Your task to perform on an android device: add a label to a message in the gmail app Image 0: 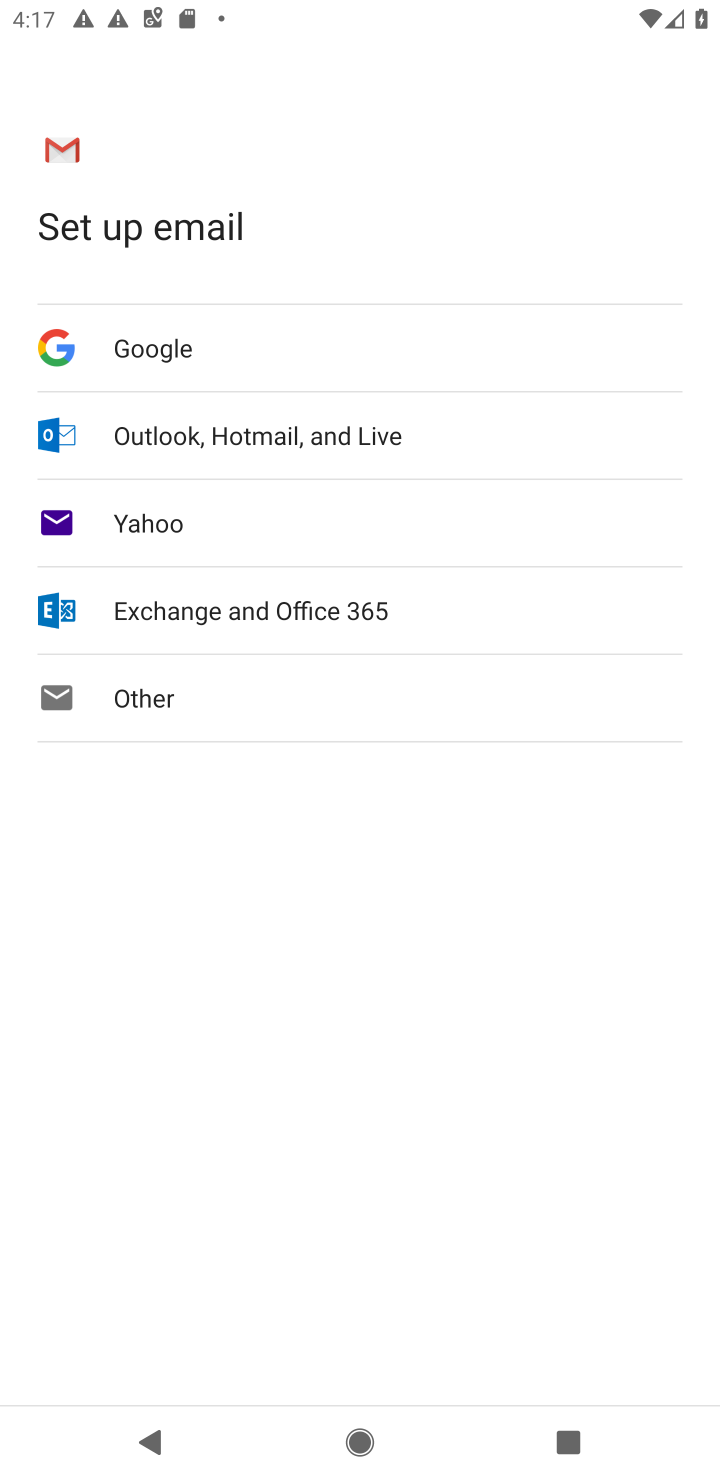
Step 0: press home button
Your task to perform on an android device: add a label to a message in the gmail app Image 1: 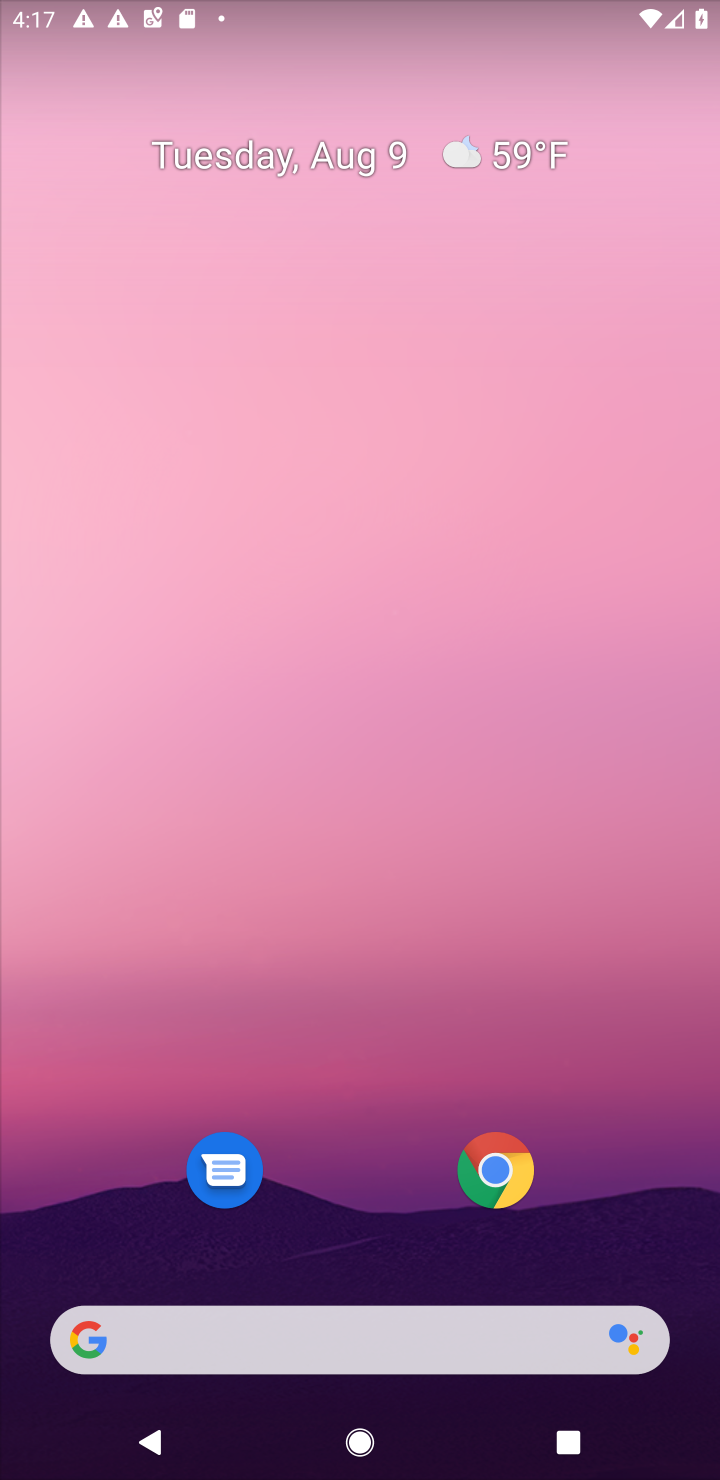
Step 1: drag from (286, 885) to (246, 23)
Your task to perform on an android device: add a label to a message in the gmail app Image 2: 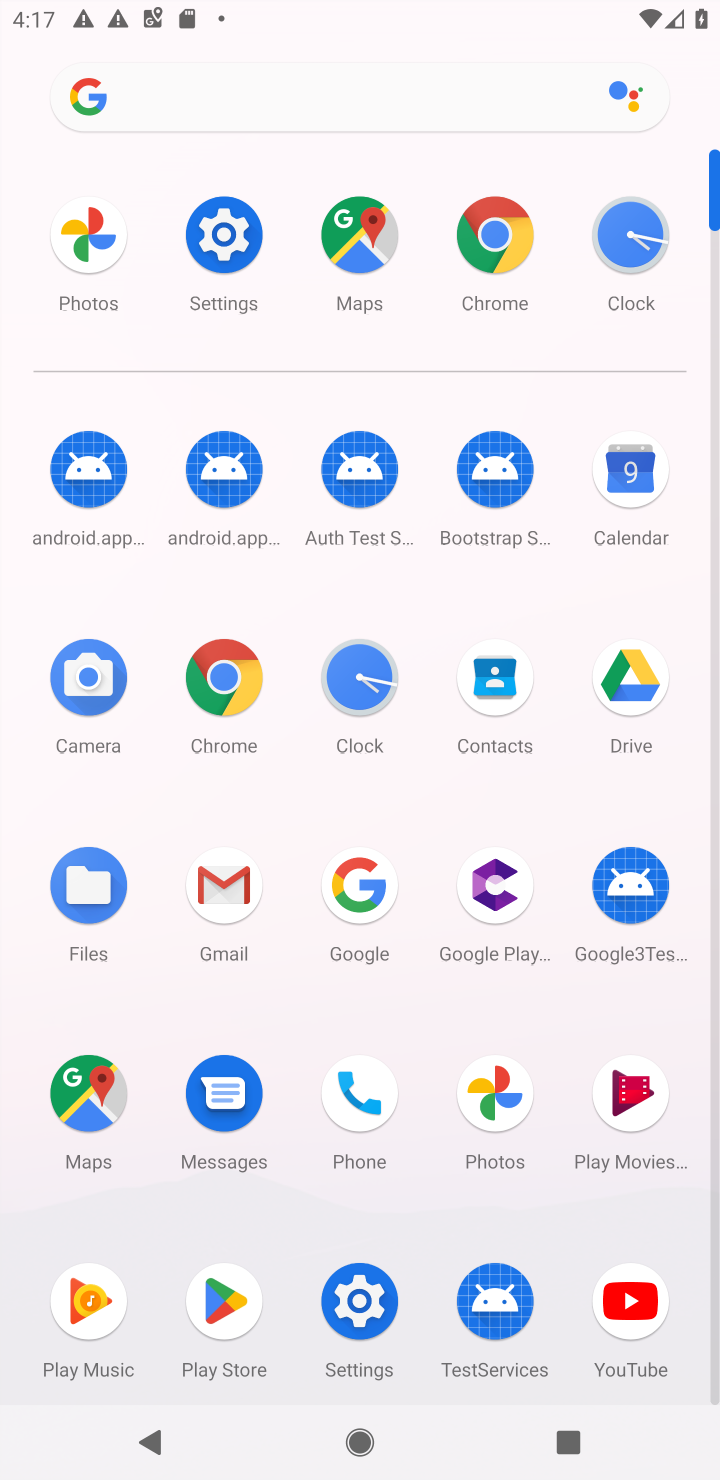
Step 2: click (216, 877)
Your task to perform on an android device: add a label to a message in the gmail app Image 3: 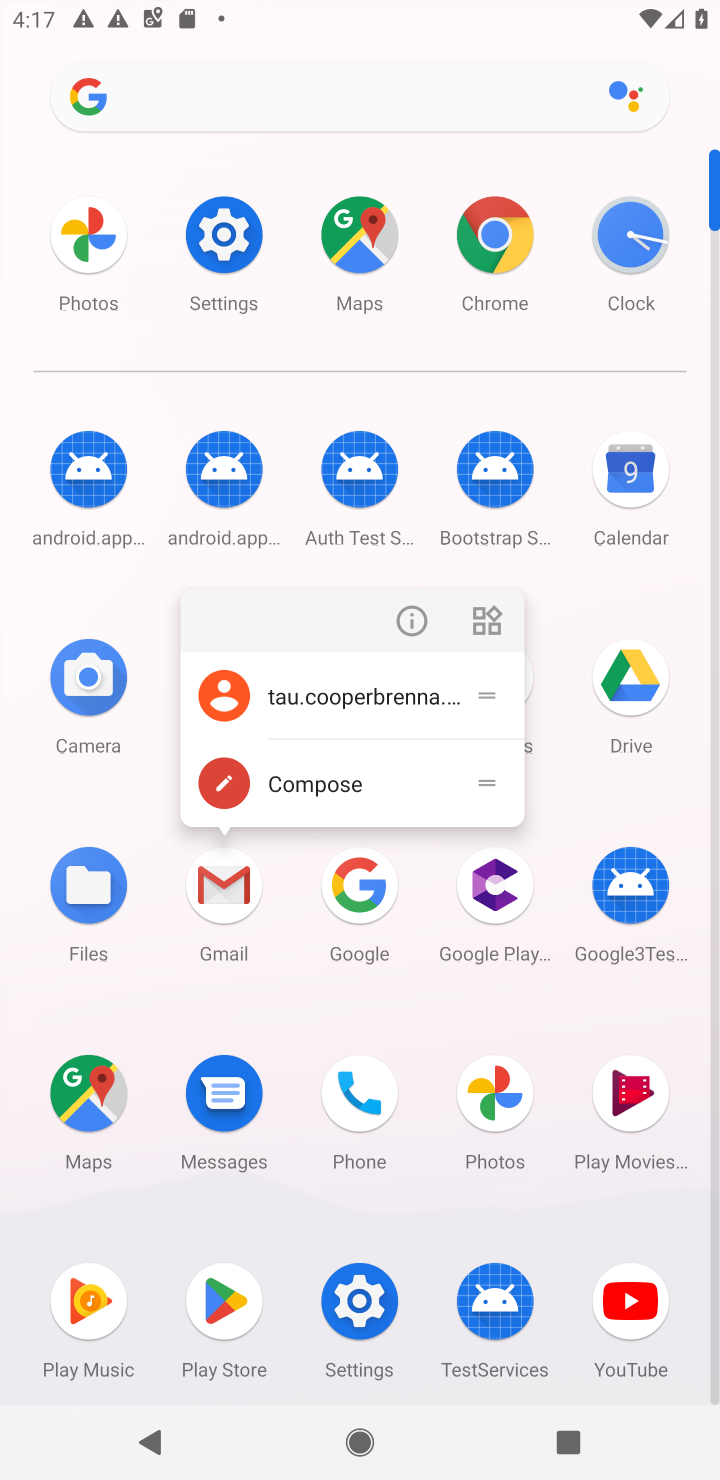
Step 3: click (214, 877)
Your task to perform on an android device: add a label to a message in the gmail app Image 4: 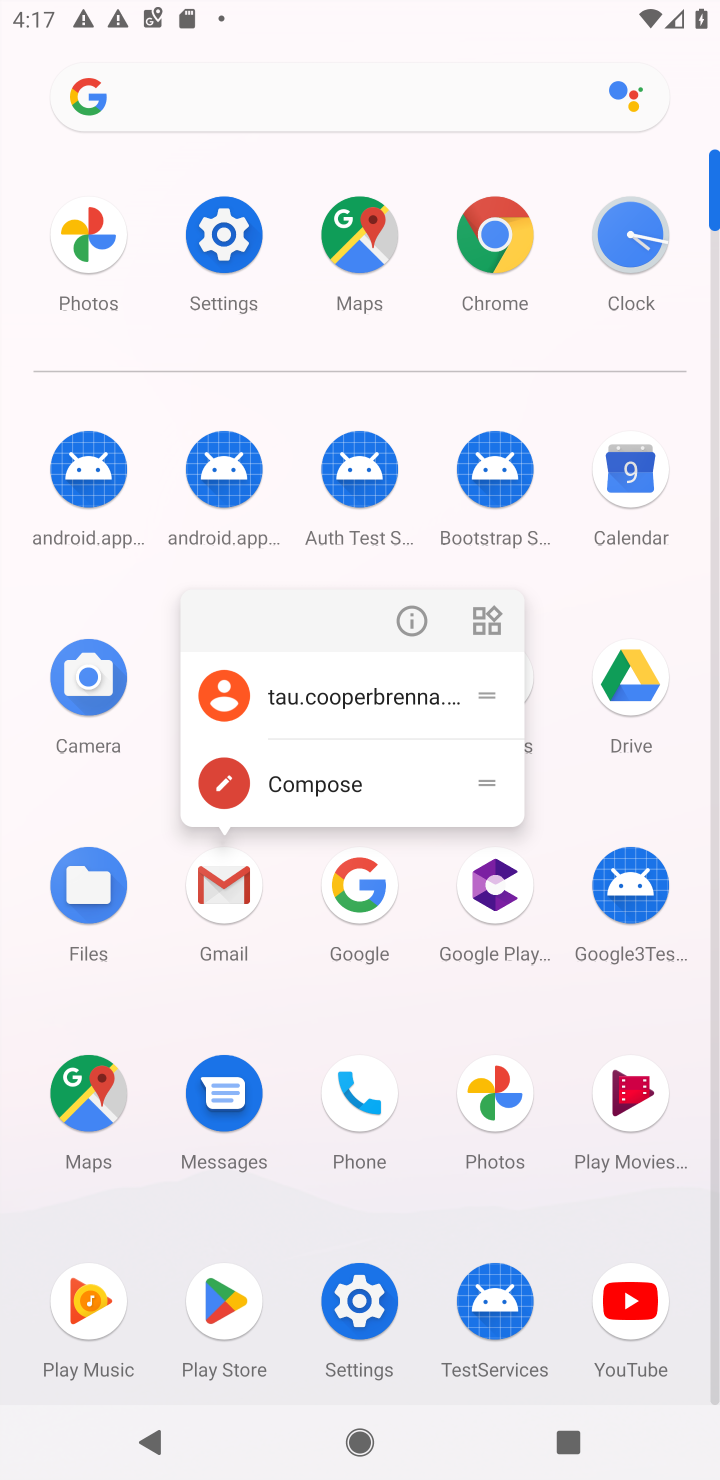
Step 4: click (213, 877)
Your task to perform on an android device: add a label to a message in the gmail app Image 5: 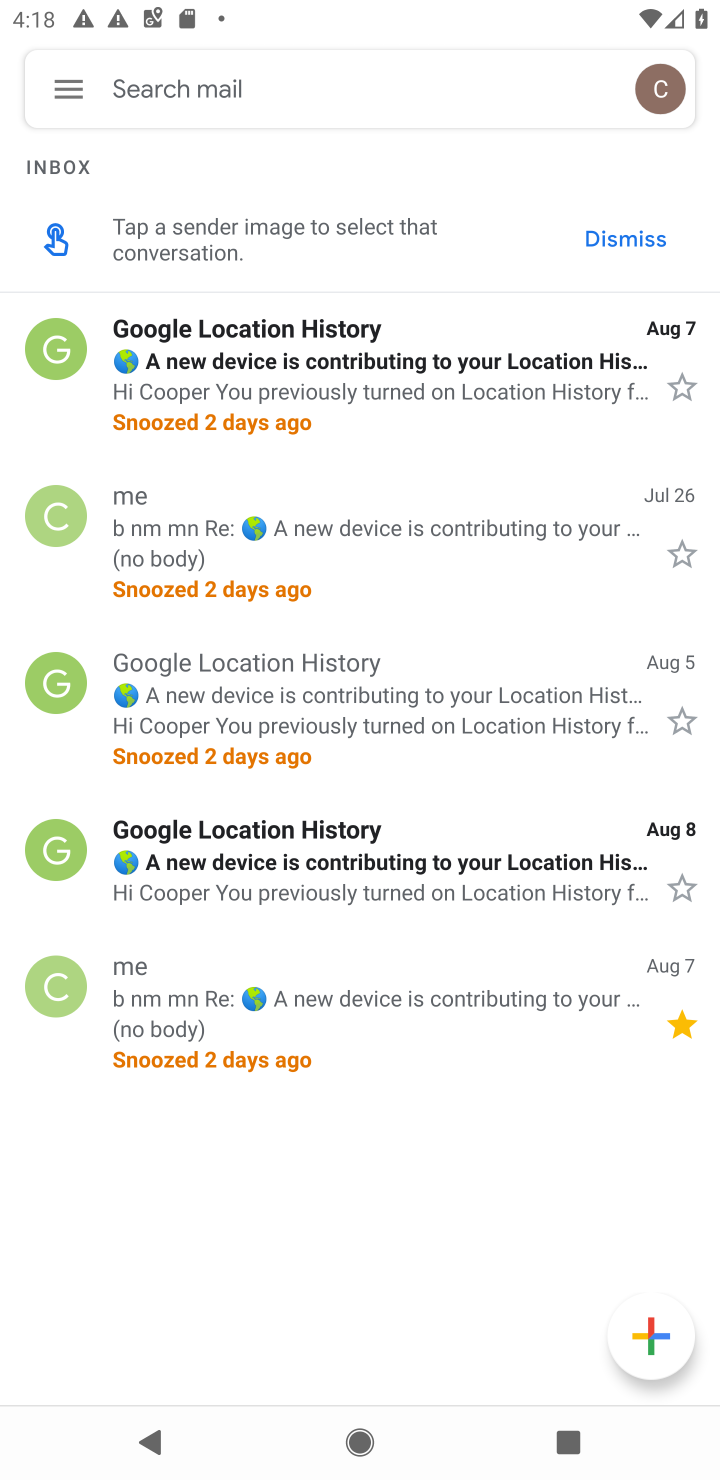
Step 5: click (380, 372)
Your task to perform on an android device: add a label to a message in the gmail app Image 6: 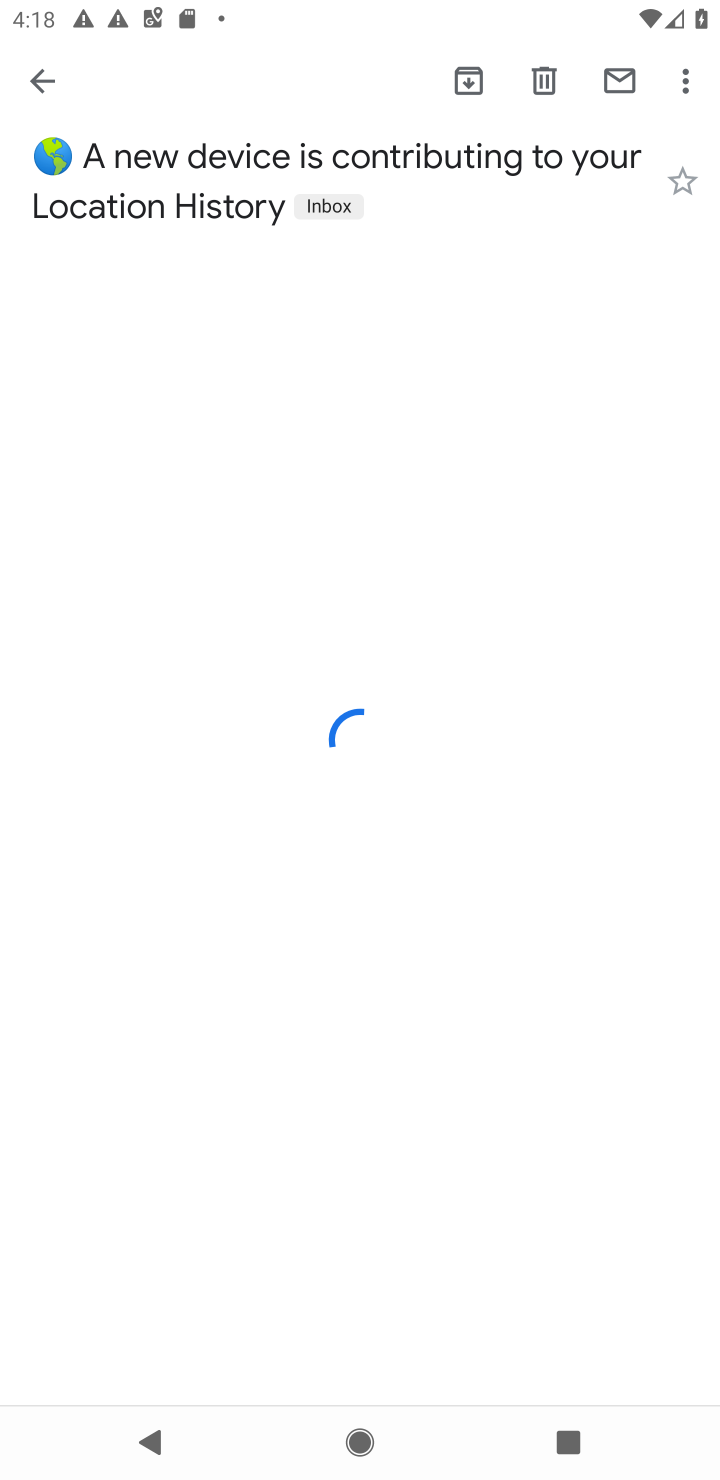
Step 6: click (683, 75)
Your task to perform on an android device: add a label to a message in the gmail app Image 7: 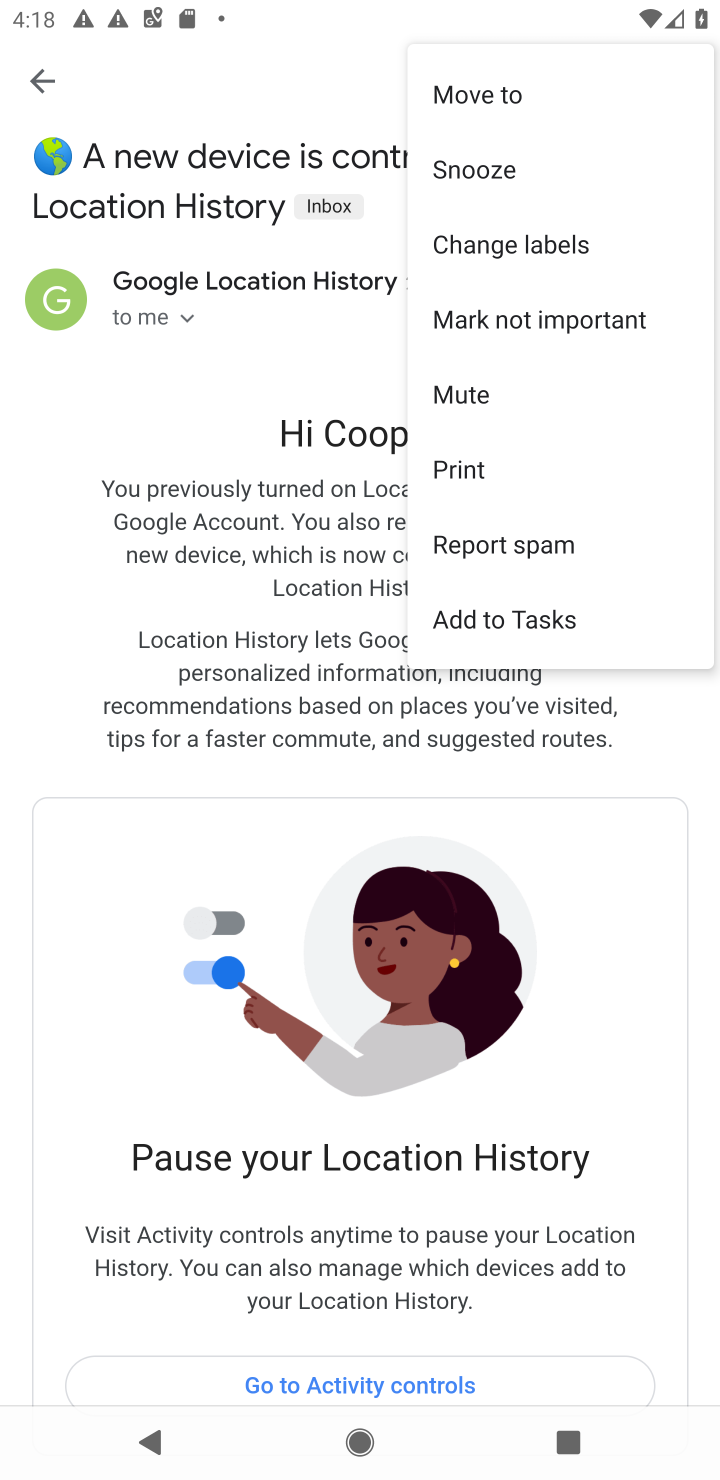
Step 7: click (529, 243)
Your task to perform on an android device: add a label to a message in the gmail app Image 8: 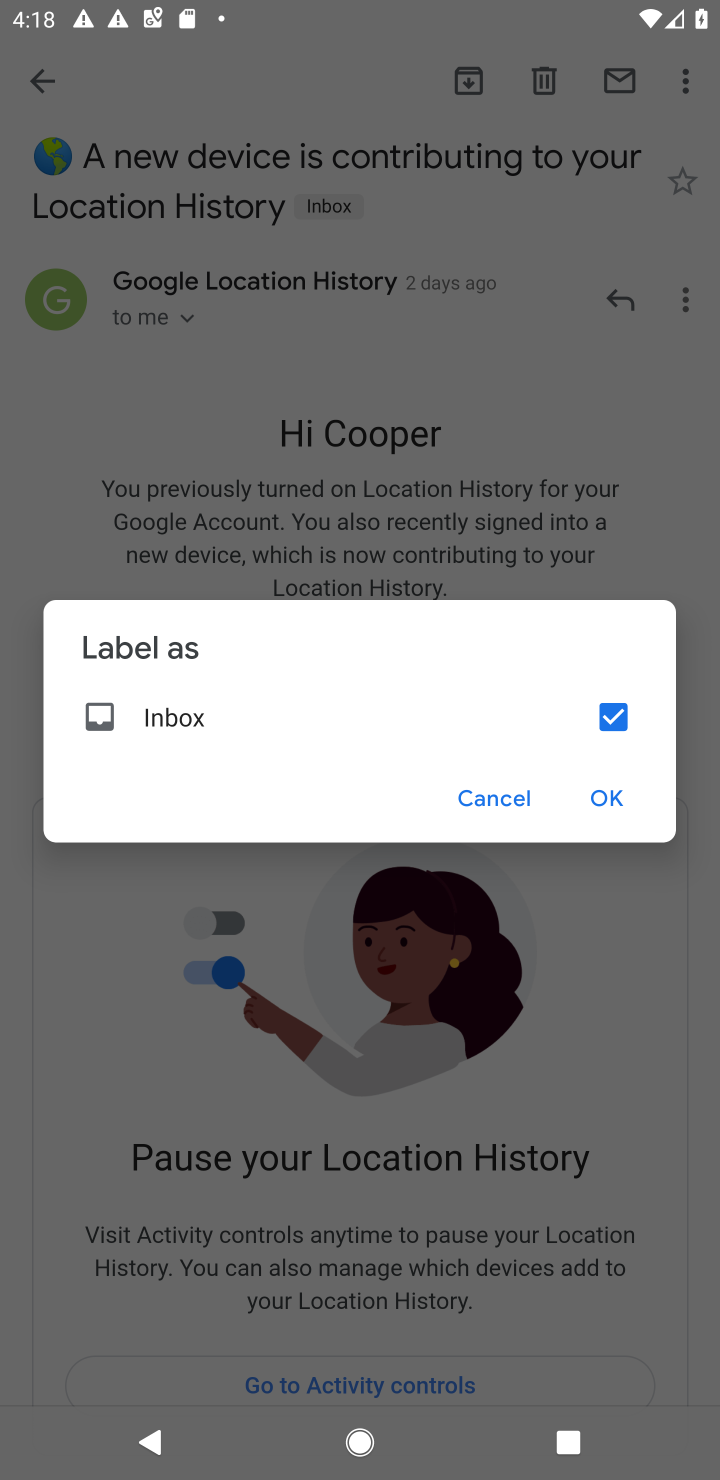
Step 8: click (612, 788)
Your task to perform on an android device: add a label to a message in the gmail app Image 9: 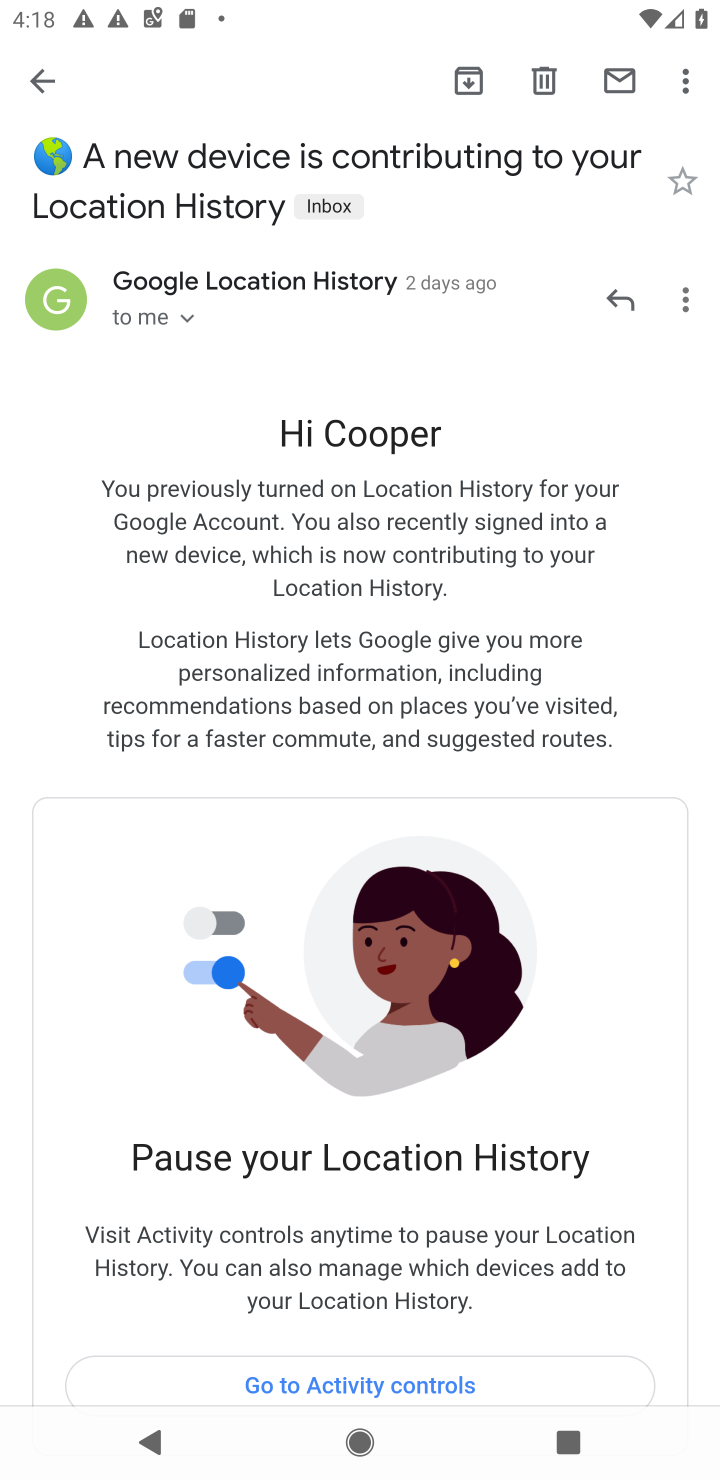
Step 9: task complete